Your task to perform on an android device: Open Chrome and go to the settings page Image 0: 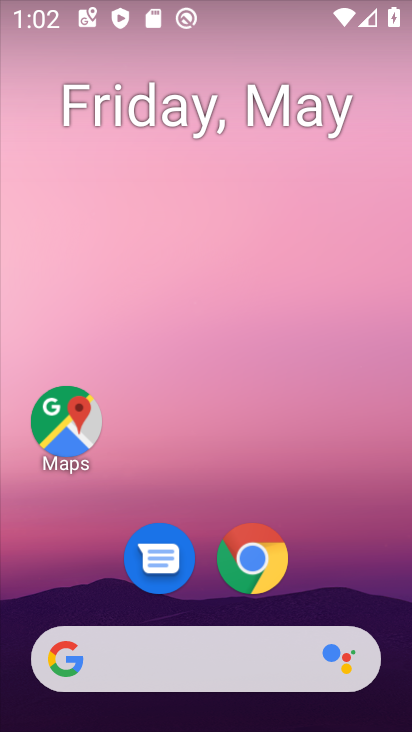
Step 0: click (262, 557)
Your task to perform on an android device: Open Chrome and go to the settings page Image 1: 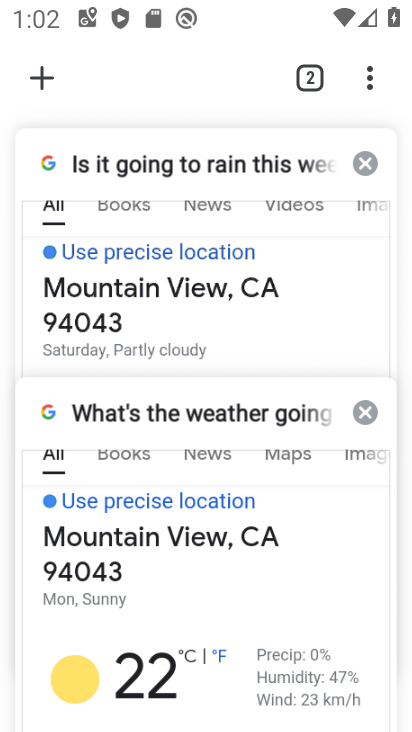
Step 1: click (238, 399)
Your task to perform on an android device: Open Chrome and go to the settings page Image 2: 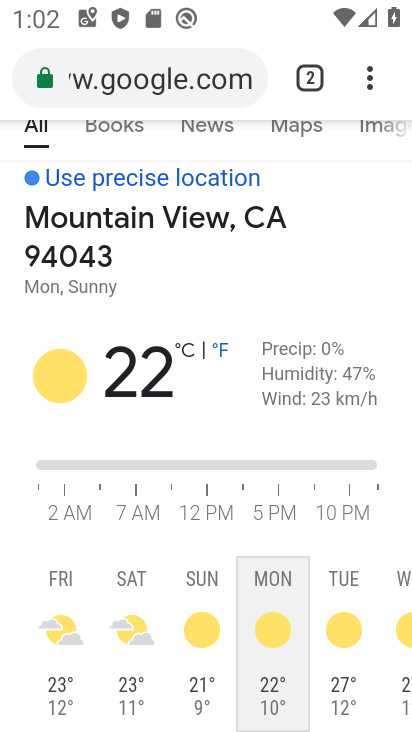
Step 2: click (375, 86)
Your task to perform on an android device: Open Chrome and go to the settings page Image 3: 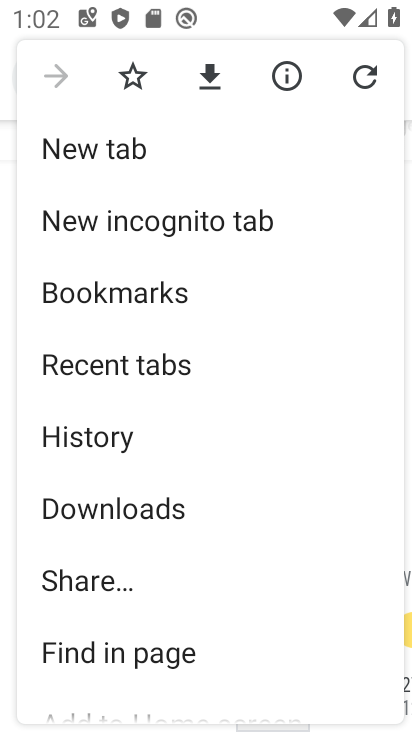
Step 3: drag from (163, 611) to (115, 141)
Your task to perform on an android device: Open Chrome and go to the settings page Image 4: 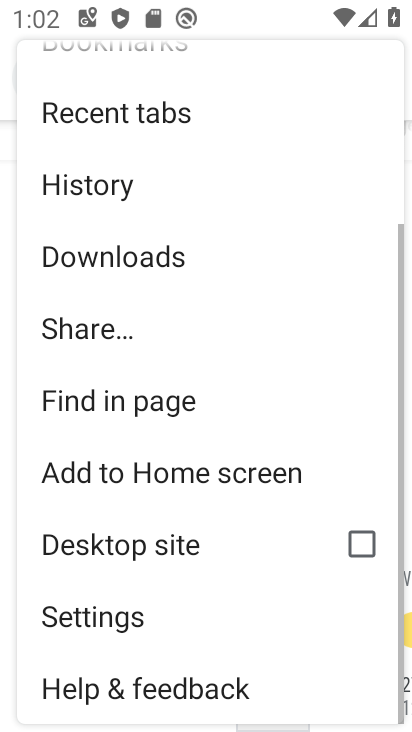
Step 4: click (113, 621)
Your task to perform on an android device: Open Chrome and go to the settings page Image 5: 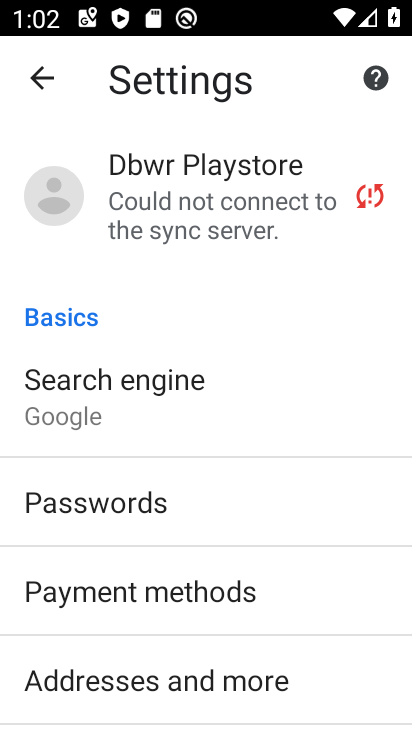
Step 5: task complete